Your task to perform on an android device: toggle show notifications on the lock screen Image 0: 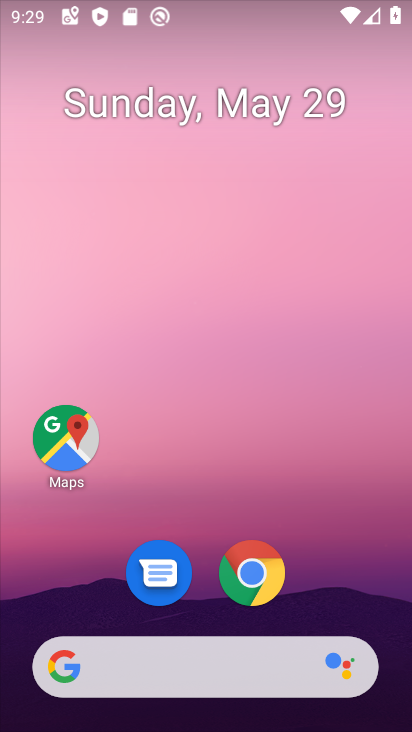
Step 0: drag from (340, 565) to (270, 33)
Your task to perform on an android device: toggle show notifications on the lock screen Image 1: 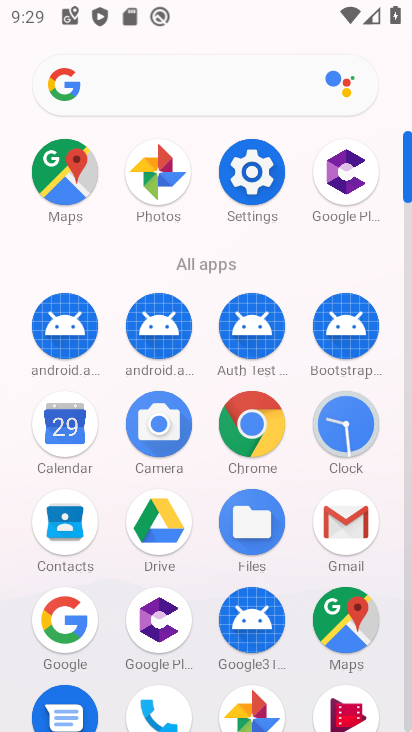
Step 1: click (255, 185)
Your task to perform on an android device: toggle show notifications on the lock screen Image 2: 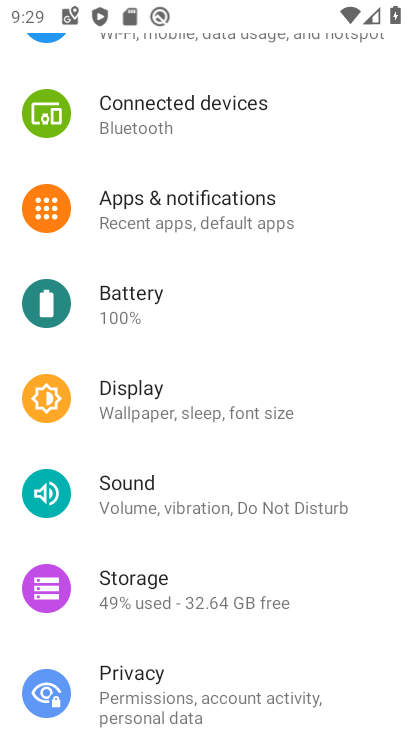
Step 2: click (242, 218)
Your task to perform on an android device: toggle show notifications on the lock screen Image 3: 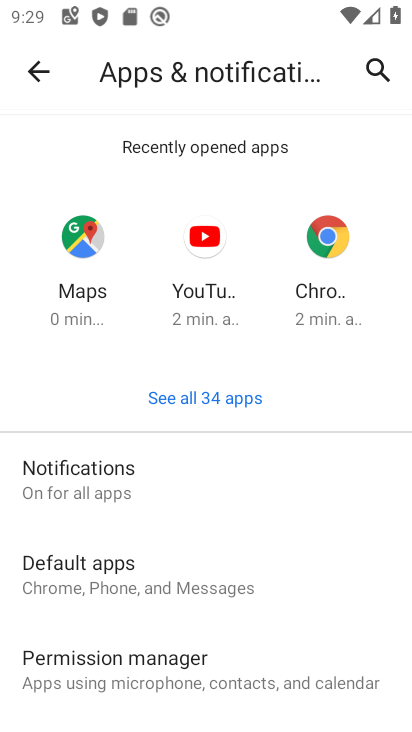
Step 3: click (242, 454)
Your task to perform on an android device: toggle show notifications on the lock screen Image 4: 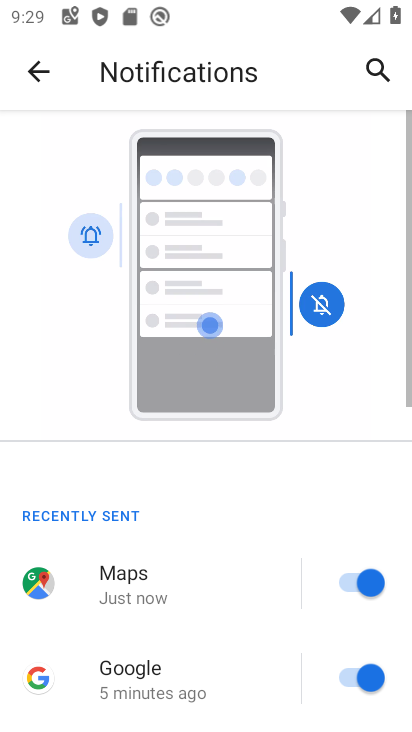
Step 4: drag from (235, 667) to (314, 205)
Your task to perform on an android device: toggle show notifications on the lock screen Image 5: 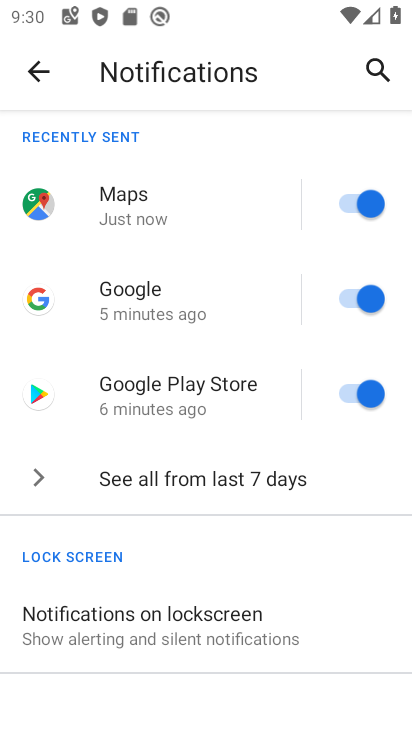
Step 5: click (243, 633)
Your task to perform on an android device: toggle show notifications on the lock screen Image 6: 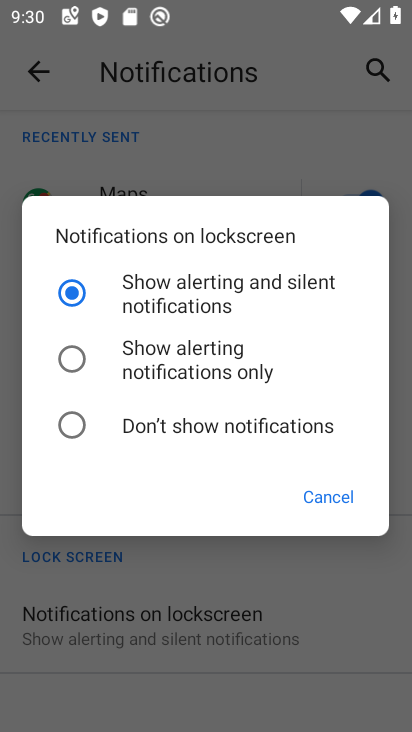
Step 6: click (202, 422)
Your task to perform on an android device: toggle show notifications on the lock screen Image 7: 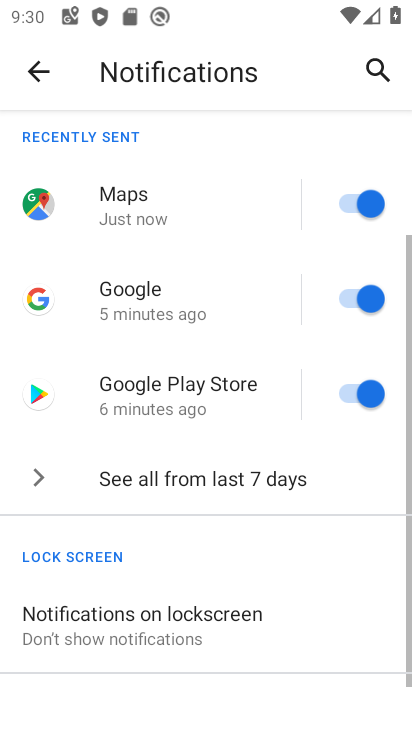
Step 7: task complete